Your task to perform on an android device: install app "Skype" Image 0: 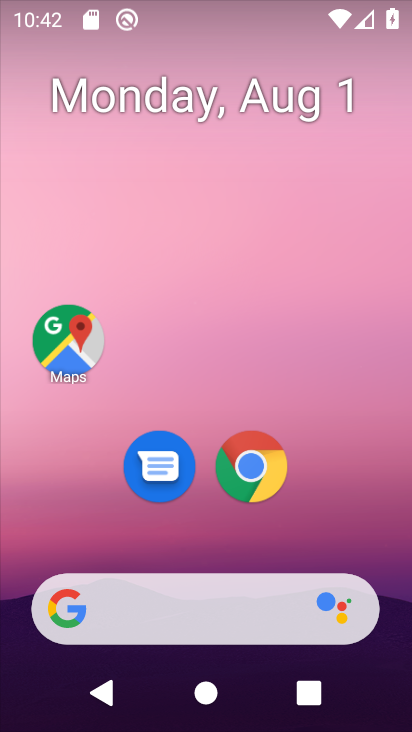
Step 0: drag from (232, 708) to (227, 82)
Your task to perform on an android device: install app "Skype" Image 1: 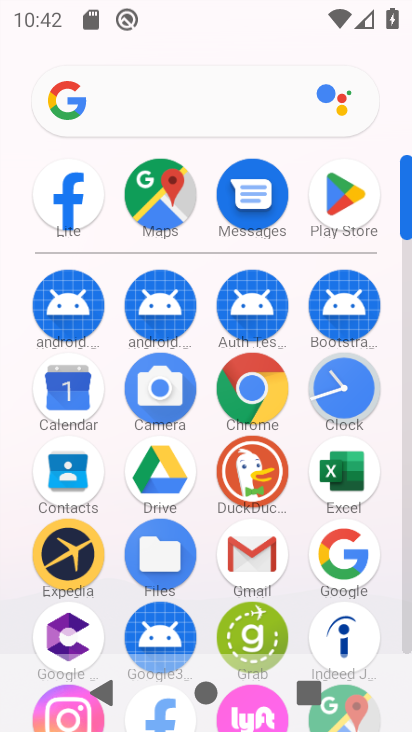
Step 1: click (335, 209)
Your task to perform on an android device: install app "Skype" Image 2: 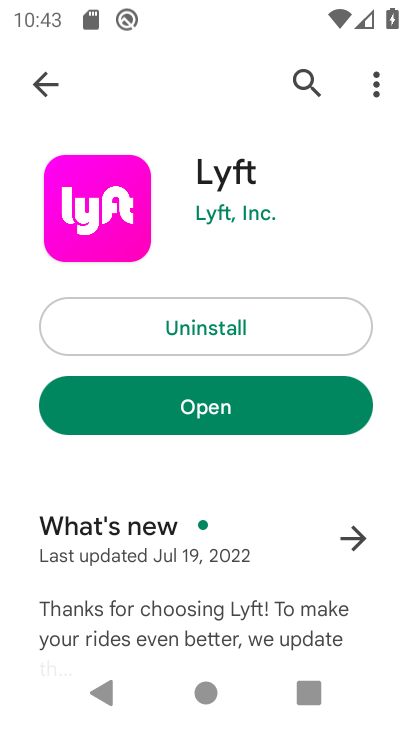
Step 2: click (304, 79)
Your task to perform on an android device: install app "Skype" Image 3: 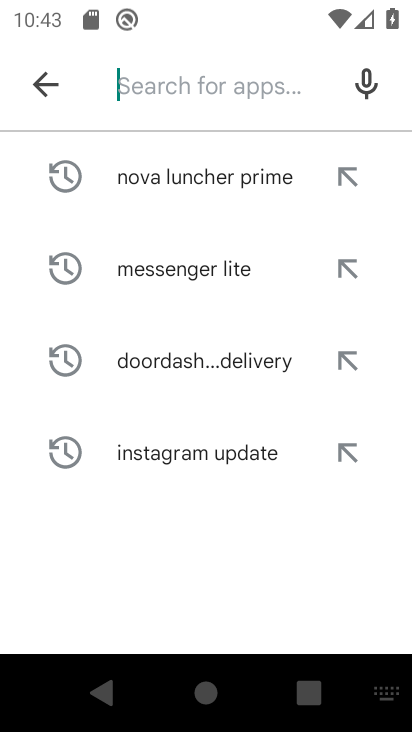
Step 3: type "Skype"
Your task to perform on an android device: install app "Skype" Image 4: 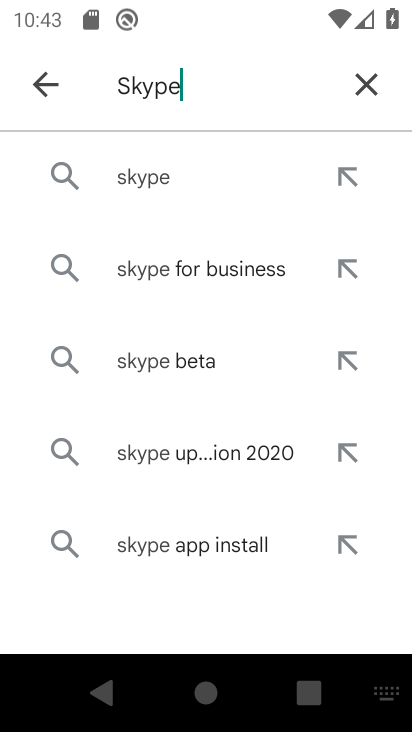
Step 4: click (138, 175)
Your task to perform on an android device: install app "Skype" Image 5: 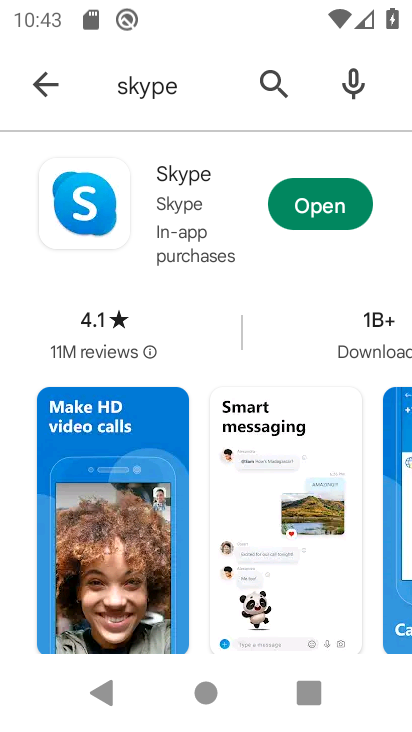
Step 5: task complete